Your task to perform on an android device: How do I get to the nearest Apple Store? Image 0: 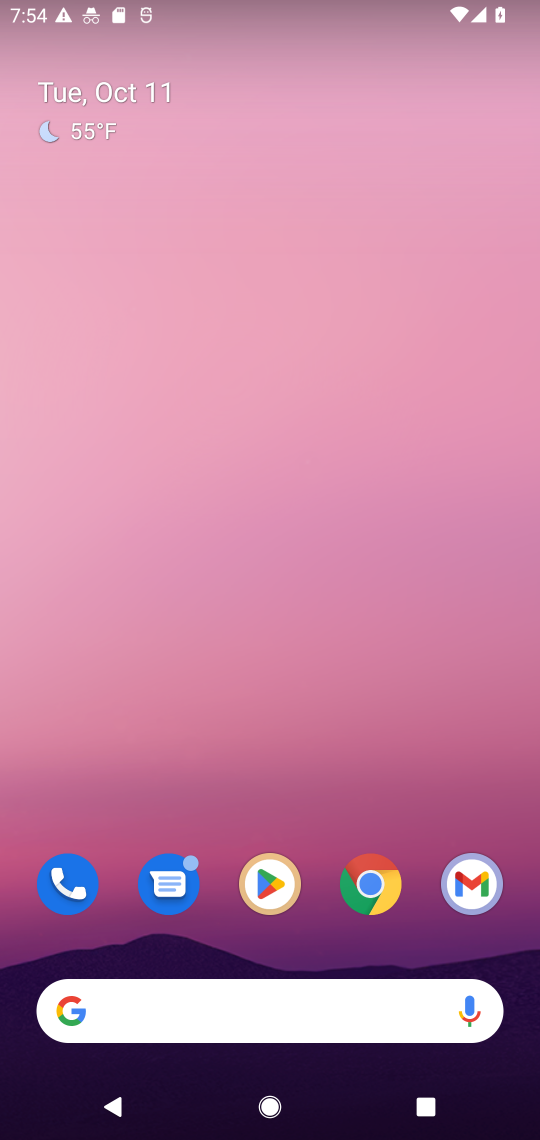
Step 0: drag from (320, 962) to (363, 211)
Your task to perform on an android device: How do I get to the nearest Apple Store? Image 1: 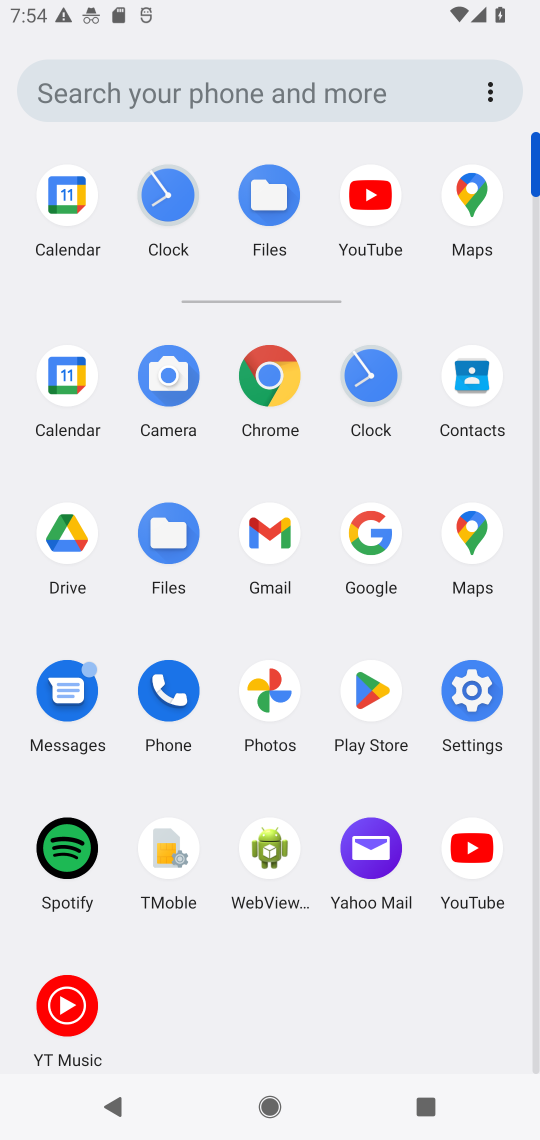
Step 1: click (375, 535)
Your task to perform on an android device: How do I get to the nearest Apple Store? Image 2: 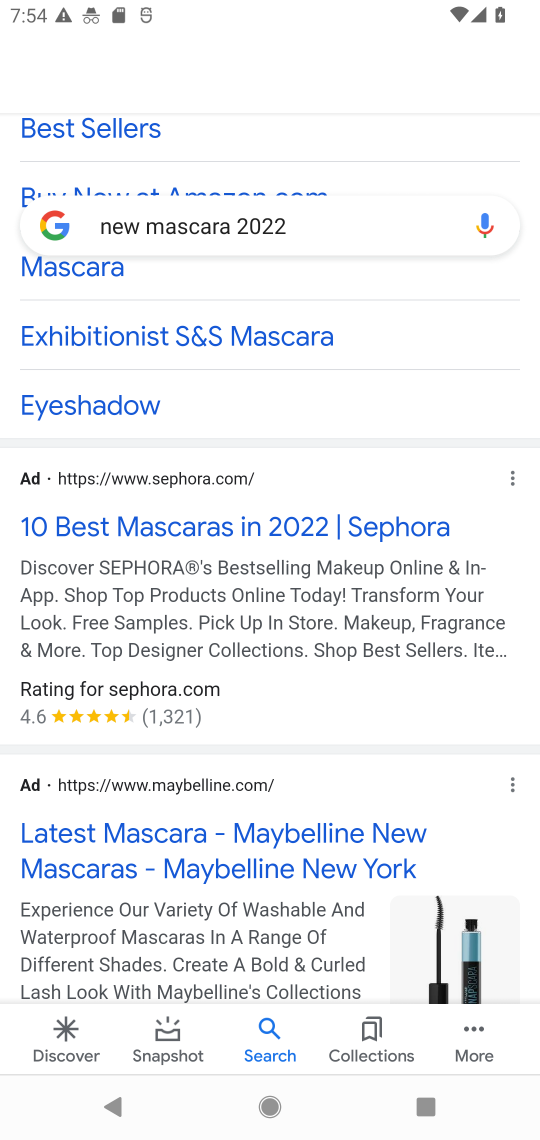
Step 2: click (314, 216)
Your task to perform on an android device: How do I get to the nearest Apple Store? Image 3: 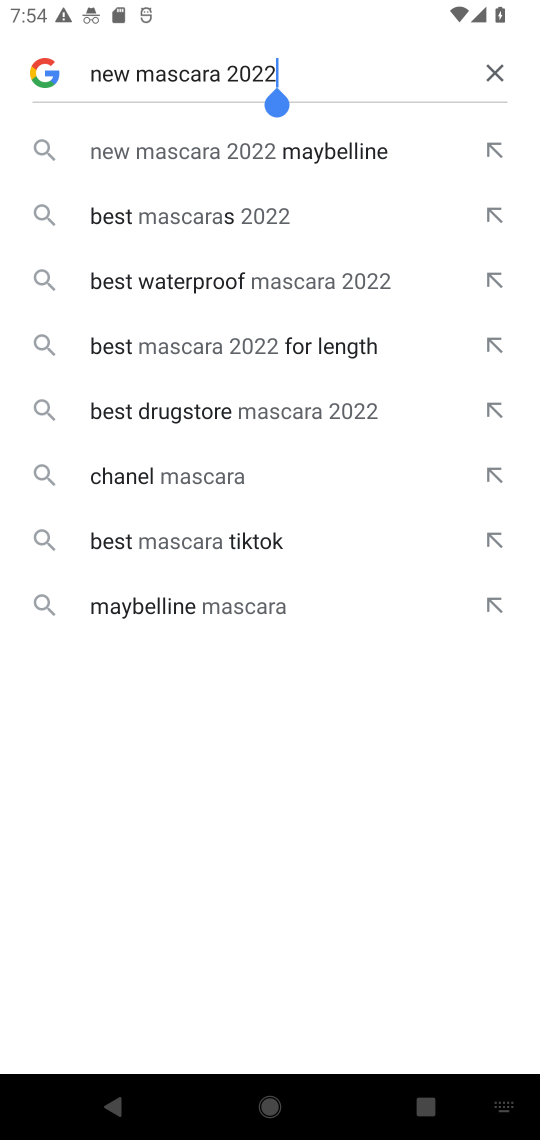
Step 3: click (486, 74)
Your task to perform on an android device: How do I get to the nearest Apple Store? Image 4: 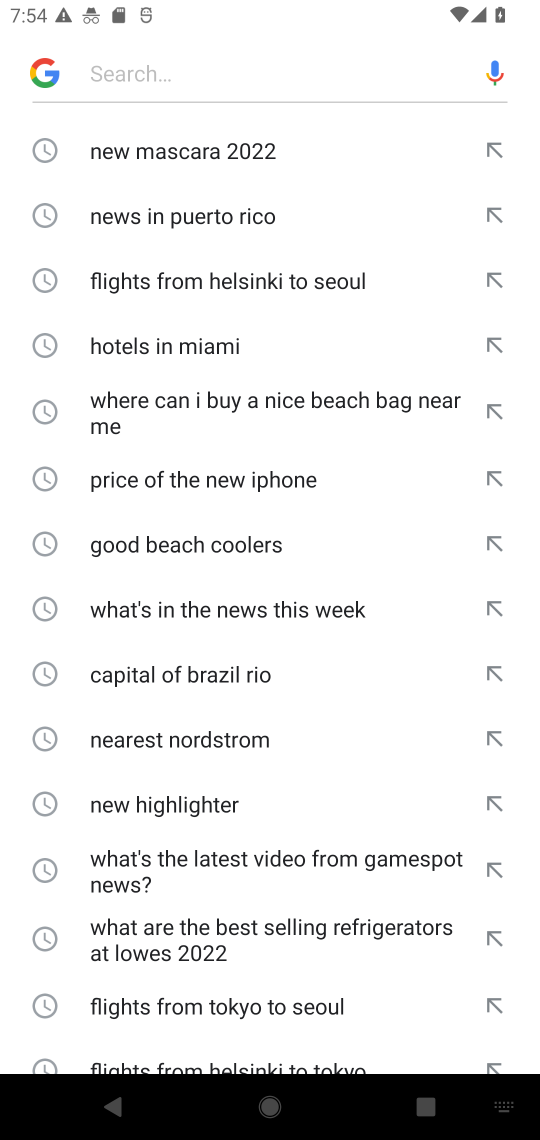
Step 4: type "How do I get to the nearest Apple Store?"
Your task to perform on an android device: How do I get to the nearest Apple Store? Image 5: 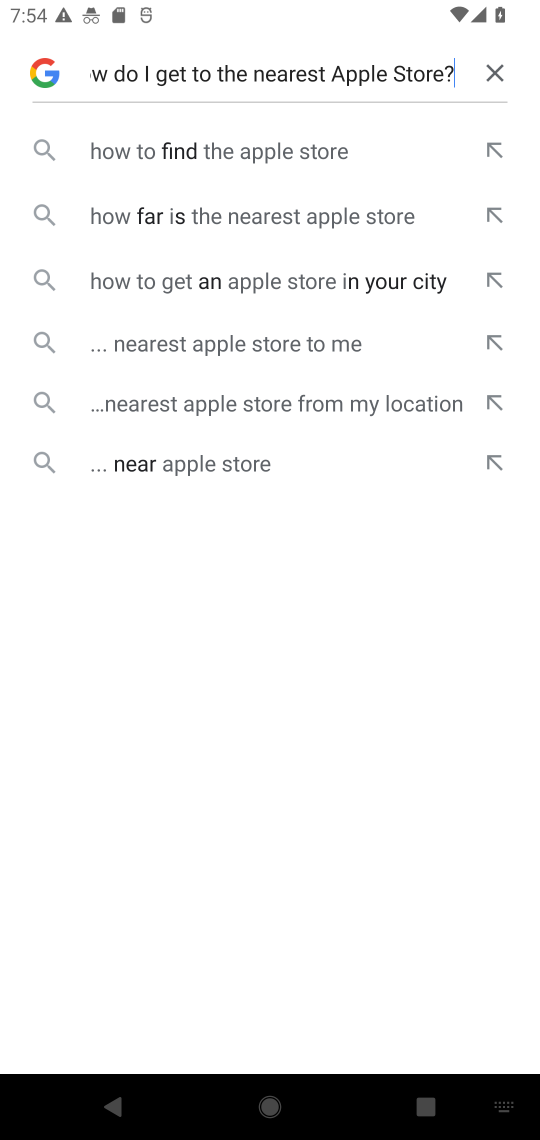
Step 5: type ""
Your task to perform on an android device: How do I get to the nearest Apple Store? Image 6: 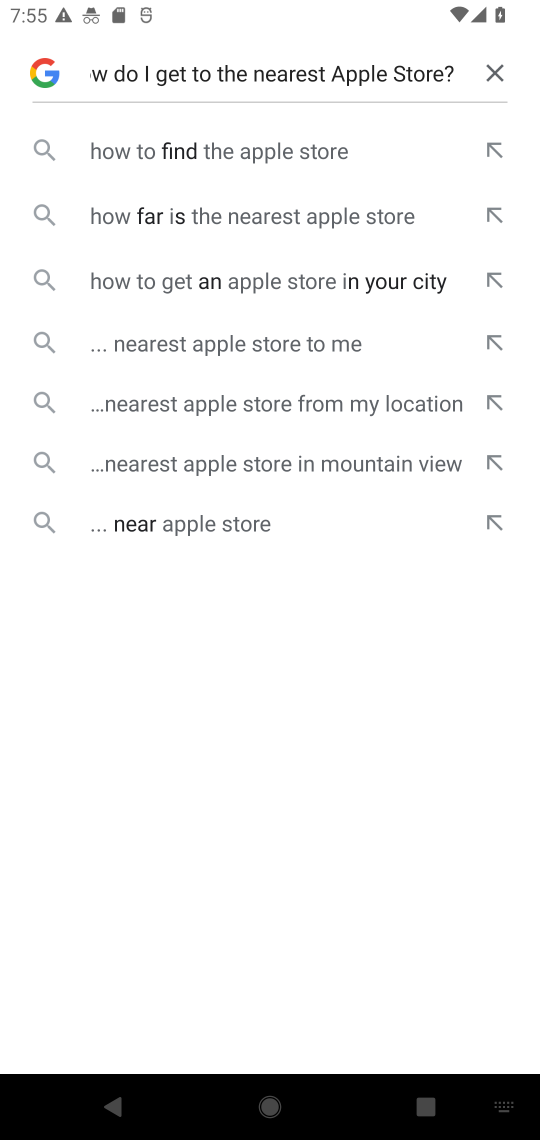
Step 6: click (239, 158)
Your task to perform on an android device: How do I get to the nearest Apple Store? Image 7: 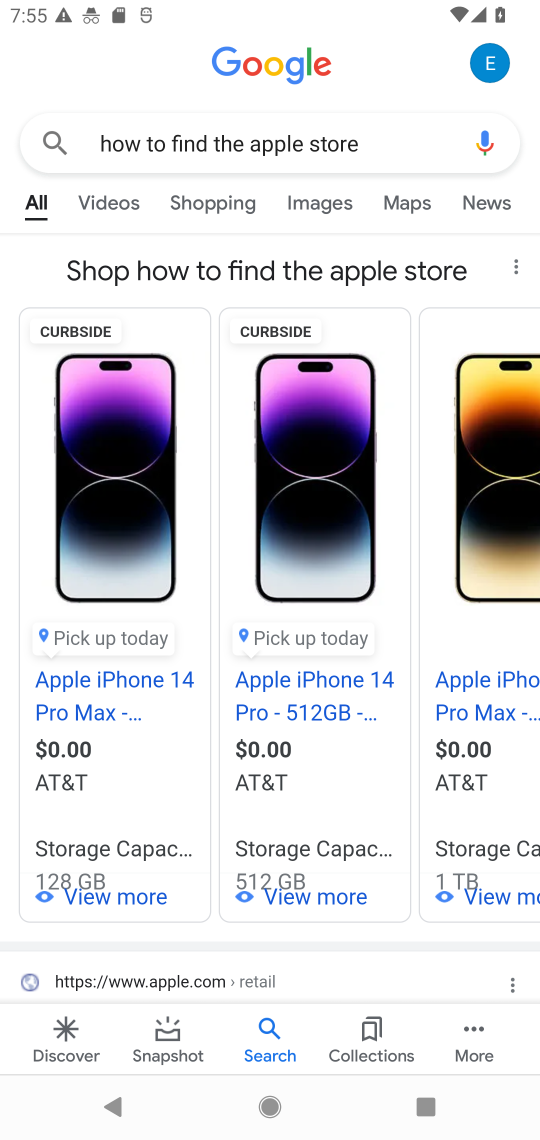
Step 7: task complete